Your task to perform on an android device: install app "Microsoft Outlook" Image 0: 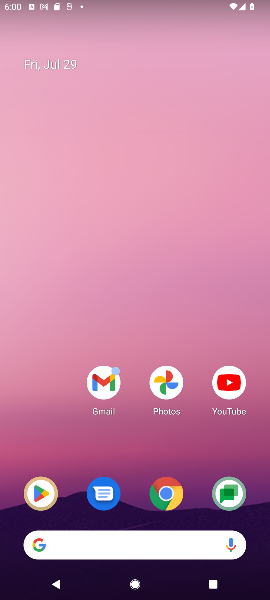
Step 0: drag from (154, 566) to (153, 55)
Your task to perform on an android device: install app "Microsoft Outlook" Image 1: 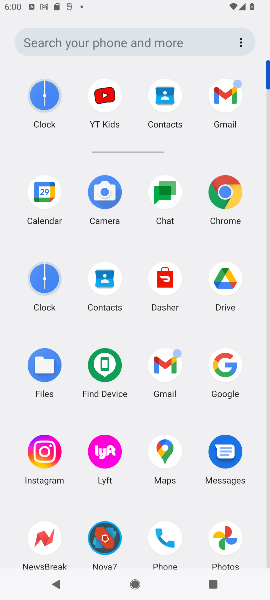
Step 1: drag from (144, 506) to (141, 215)
Your task to perform on an android device: install app "Microsoft Outlook" Image 2: 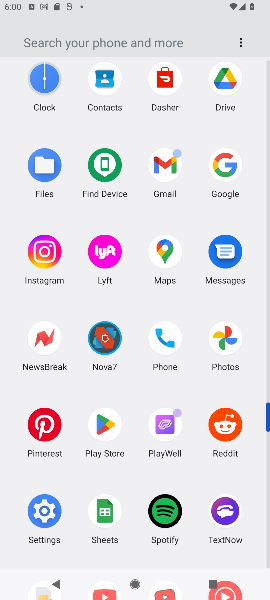
Step 2: click (104, 428)
Your task to perform on an android device: install app "Microsoft Outlook" Image 3: 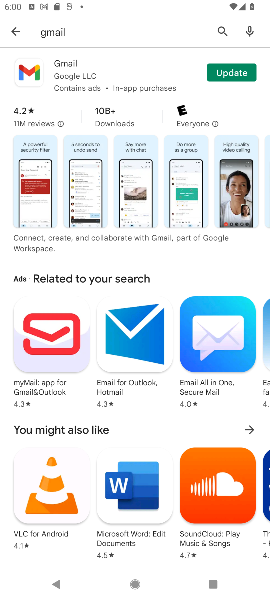
Step 3: click (219, 29)
Your task to perform on an android device: install app "Microsoft Outlook" Image 4: 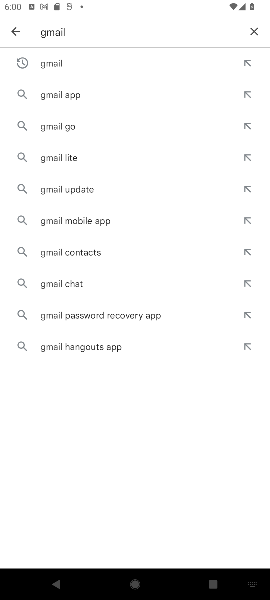
Step 4: click (253, 29)
Your task to perform on an android device: install app "Microsoft Outlook" Image 5: 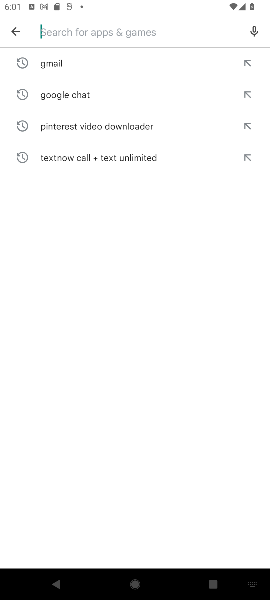
Step 5: type "Microsoft Outlook "
Your task to perform on an android device: install app "Microsoft Outlook" Image 6: 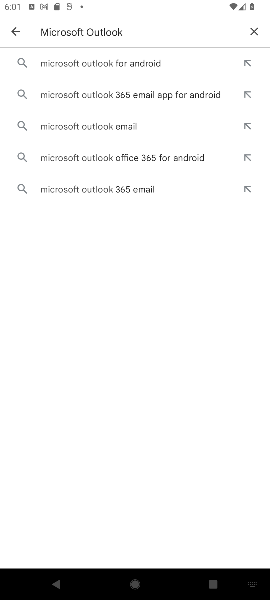
Step 6: click (70, 59)
Your task to perform on an android device: install app "Microsoft Outlook" Image 7: 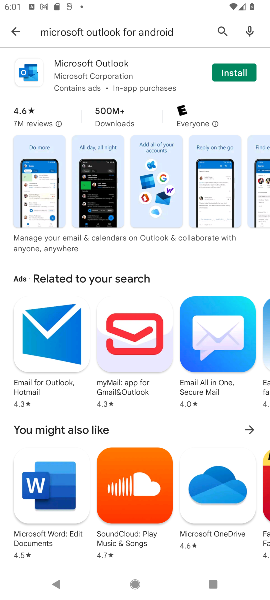
Step 7: click (239, 72)
Your task to perform on an android device: install app "Microsoft Outlook" Image 8: 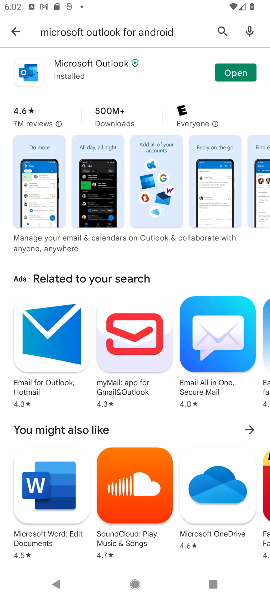
Step 8: task complete